Your task to perform on an android device: delete the emails in spam in the gmail app Image 0: 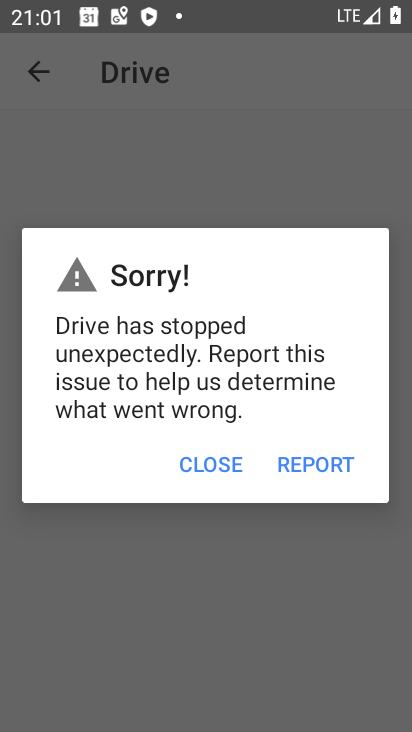
Step 0: press home button
Your task to perform on an android device: delete the emails in spam in the gmail app Image 1: 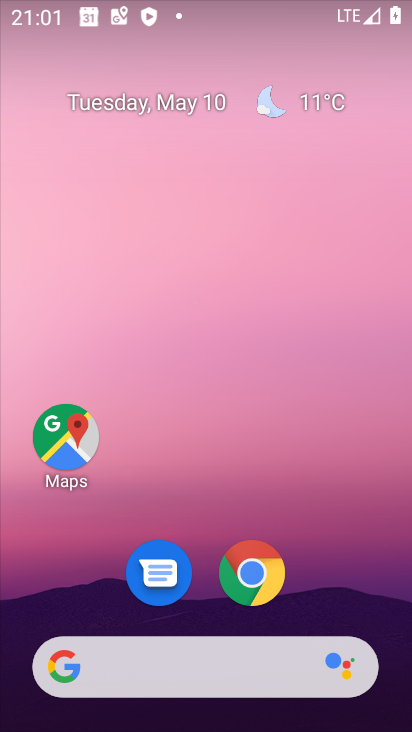
Step 1: drag from (359, 577) to (391, 3)
Your task to perform on an android device: delete the emails in spam in the gmail app Image 2: 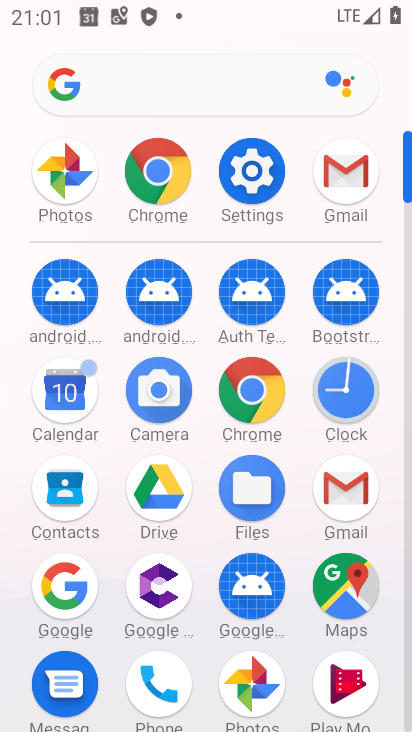
Step 2: click (345, 180)
Your task to perform on an android device: delete the emails in spam in the gmail app Image 3: 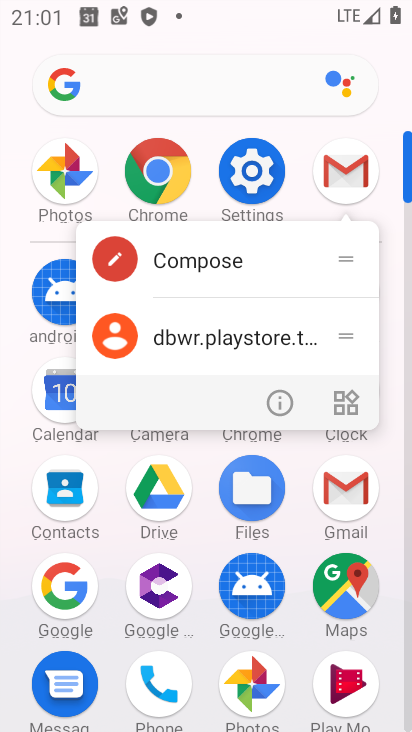
Step 3: click (345, 177)
Your task to perform on an android device: delete the emails in spam in the gmail app Image 4: 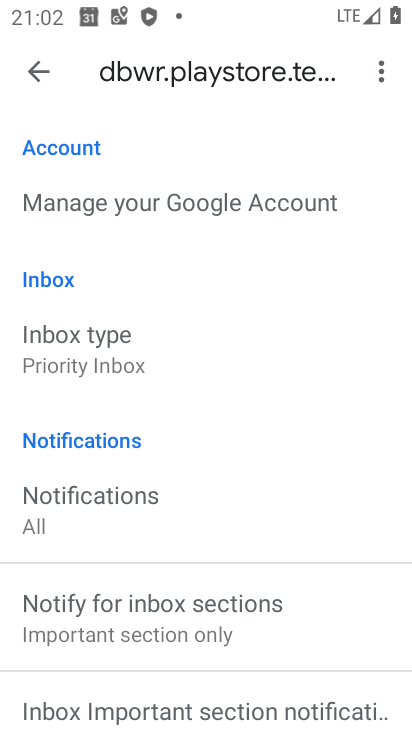
Step 4: click (40, 67)
Your task to perform on an android device: delete the emails in spam in the gmail app Image 5: 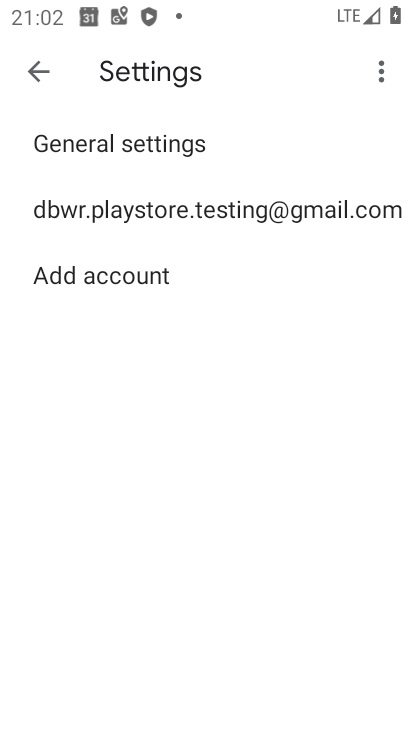
Step 5: click (41, 71)
Your task to perform on an android device: delete the emails in spam in the gmail app Image 6: 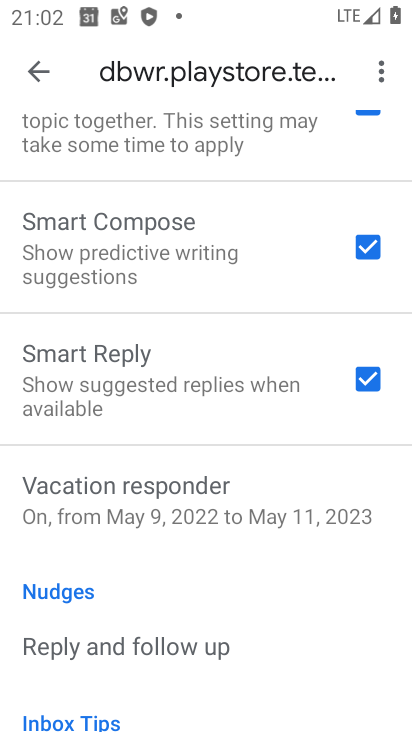
Step 6: click (39, 82)
Your task to perform on an android device: delete the emails in spam in the gmail app Image 7: 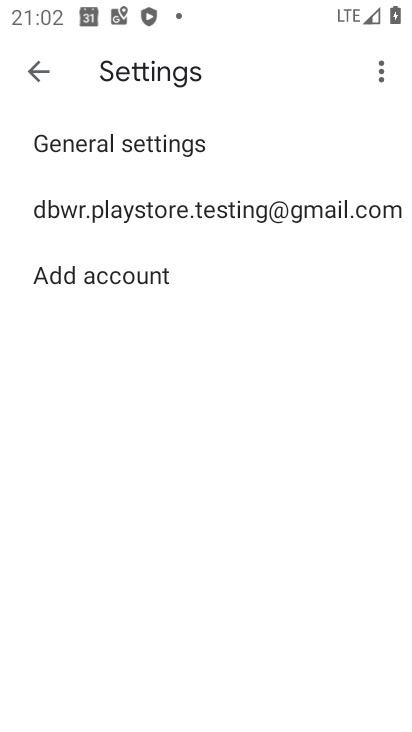
Step 7: click (39, 82)
Your task to perform on an android device: delete the emails in spam in the gmail app Image 8: 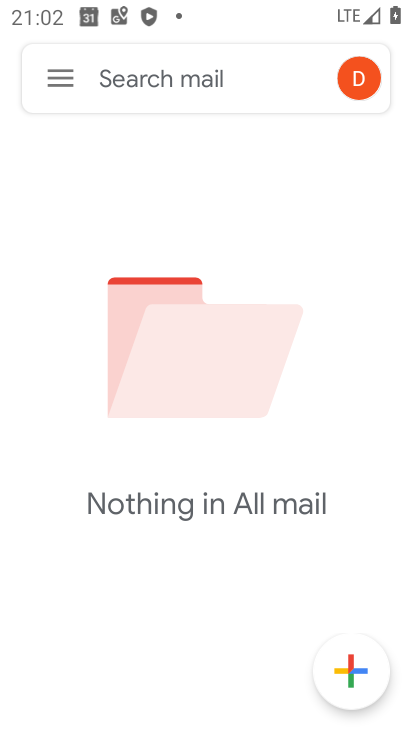
Step 8: click (68, 74)
Your task to perform on an android device: delete the emails in spam in the gmail app Image 9: 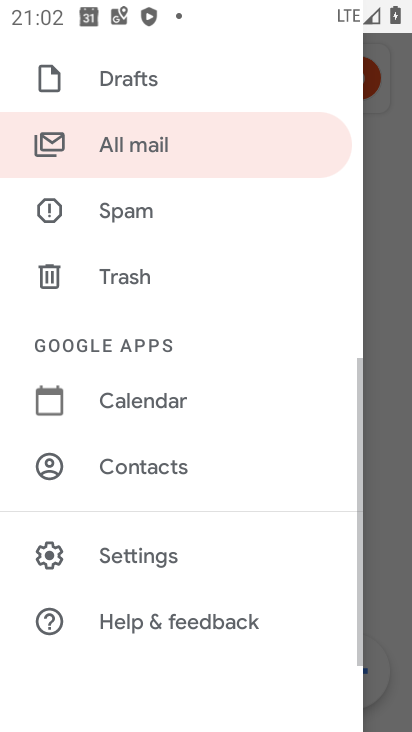
Step 9: click (108, 206)
Your task to perform on an android device: delete the emails in spam in the gmail app Image 10: 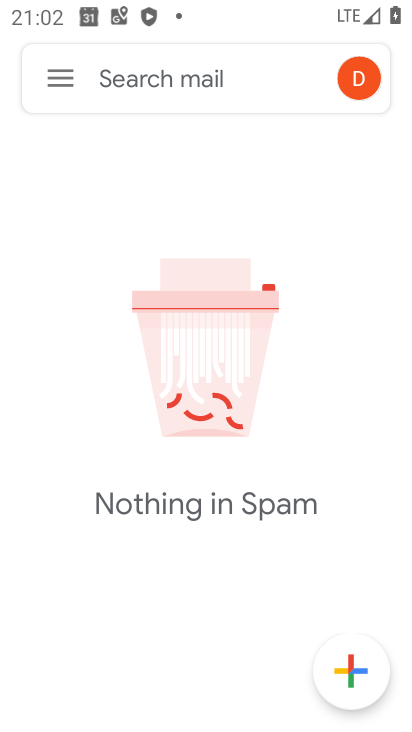
Step 10: task complete